Your task to perform on an android device: uninstall "Firefox Browser" Image 0: 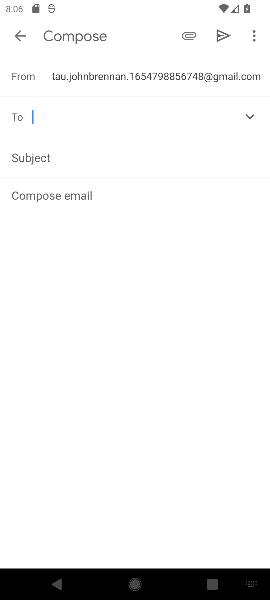
Step 0: press home button
Your task to perform on an android device: uninstall "Firefox Browser" Image 1: 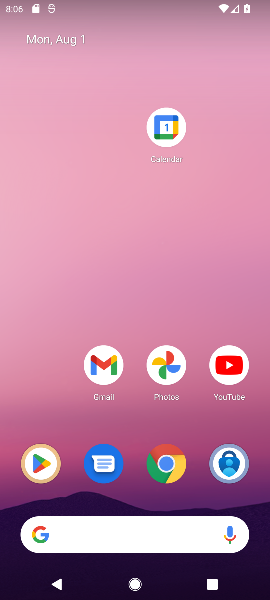
Step 1: click (42, 478)
Your task to perform on an android device: uninstall "Firefox Browser" Image 2: 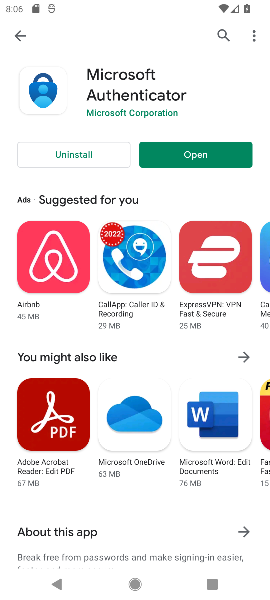
Step 2: click (213, 43)
Your task to perform on an android device: uninstall "Firefox Browser" Image 3: 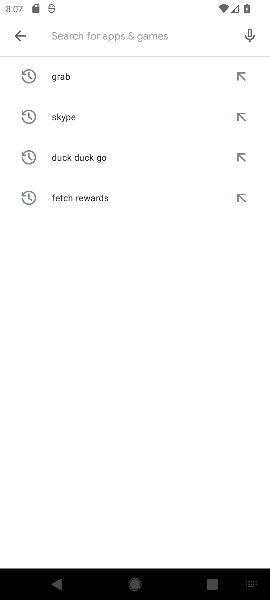
Step 3: type "firefox"
Your task to perform on an android device: uninstall "Firefox Browser" Image 4: 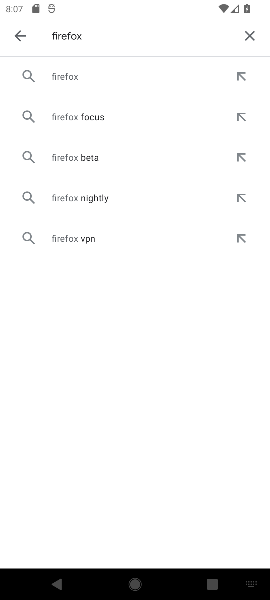
Step 4: click (107, 79)
Your task to perform on an android device: uninstall "Firefox Browser" Image 5: 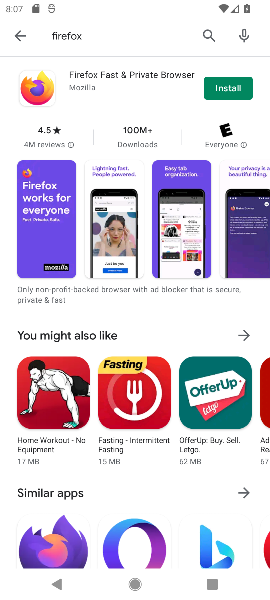
Step 5: click (211, 96)
Your task to perform on an android device: uninstall "Firefox Browser" Image 6: 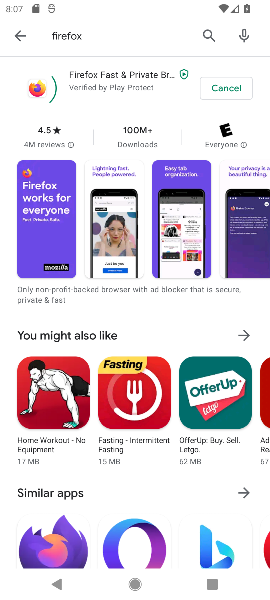
Step 6: task complete